Your task to perform on an android device: toggle sleep mode Image 0: 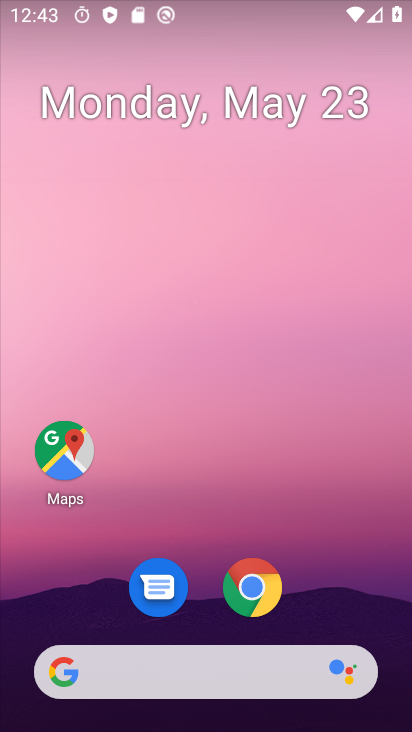
Step 0: drag from (181, 568) to (215, 75)
Your task to perform on an android device: toggle sleep mode Image 1: 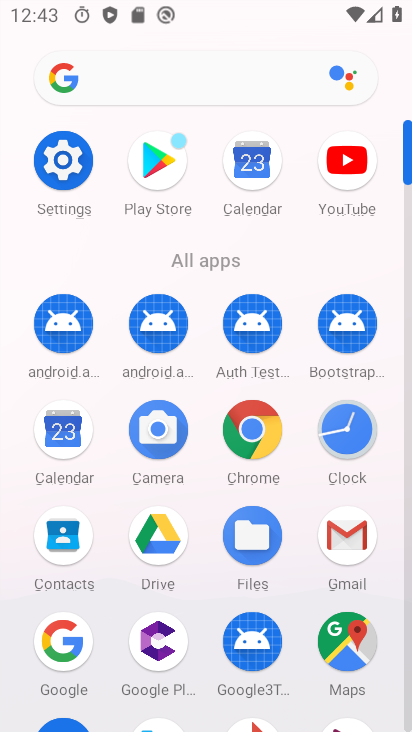
Step 1: click (68, 150)
Your task to perform on an android device: toggle sleep mode Image 2: 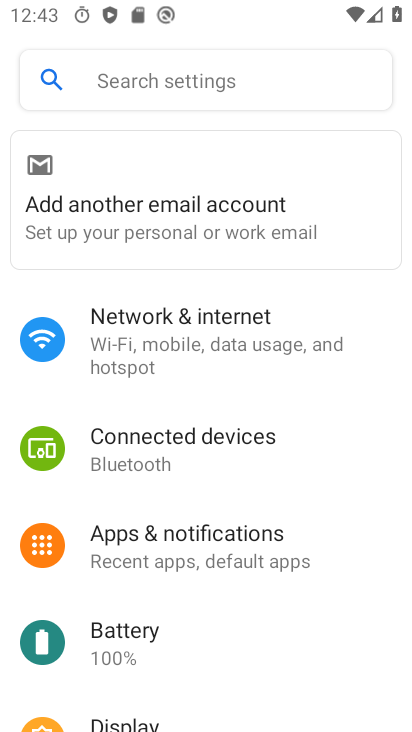
Step 2: click (110, 81)
Your task to perform on an android device: toggle sleep mode Image 3: 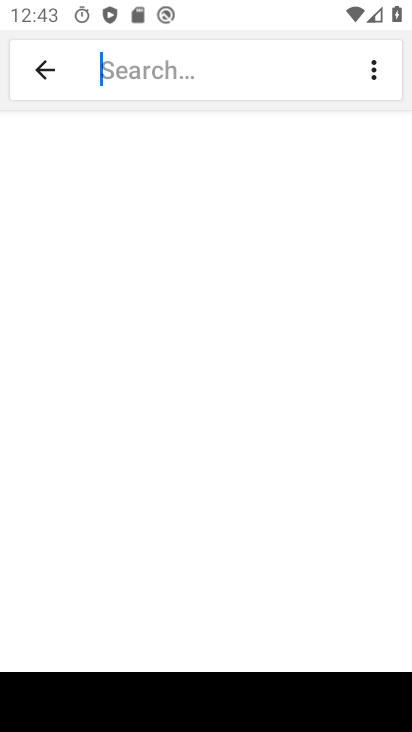
Step 3: type "sleep mode"
Your task to perform on an android device: toggle sleep mode Image 4: 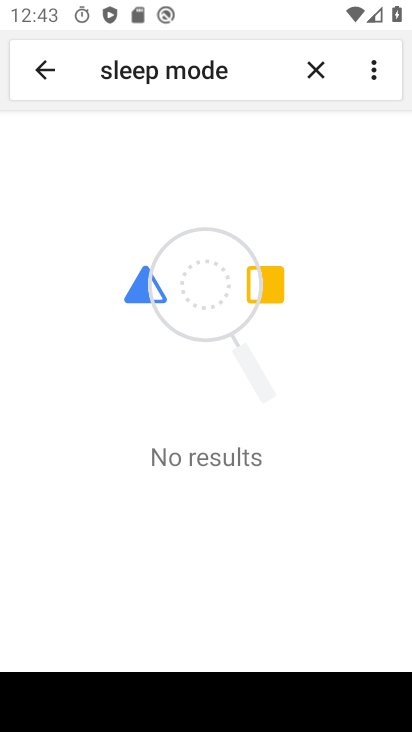
Step 4: task complete